Your task to perform on an android device: Open Google Maps Image 0: 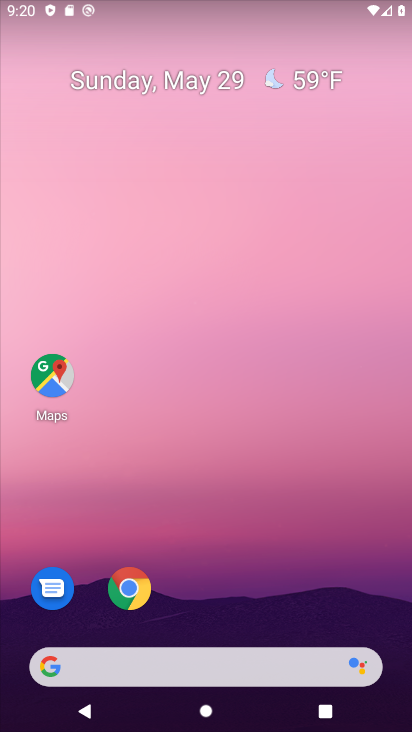
Step 0: click (61, 358)
Your task to perform on an android device: Open Google Maps Image 1: 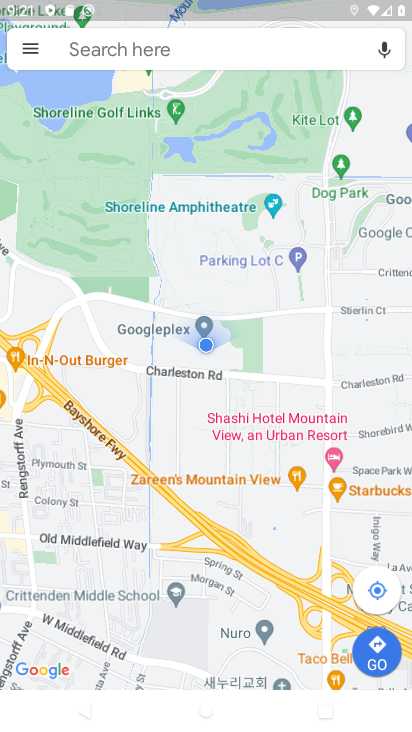
Step 1: task complete